Your task to perform on an android device: Clear the cart on target.com. Add duracell triple a to the cart on target.com, then select checkout. Image 0: 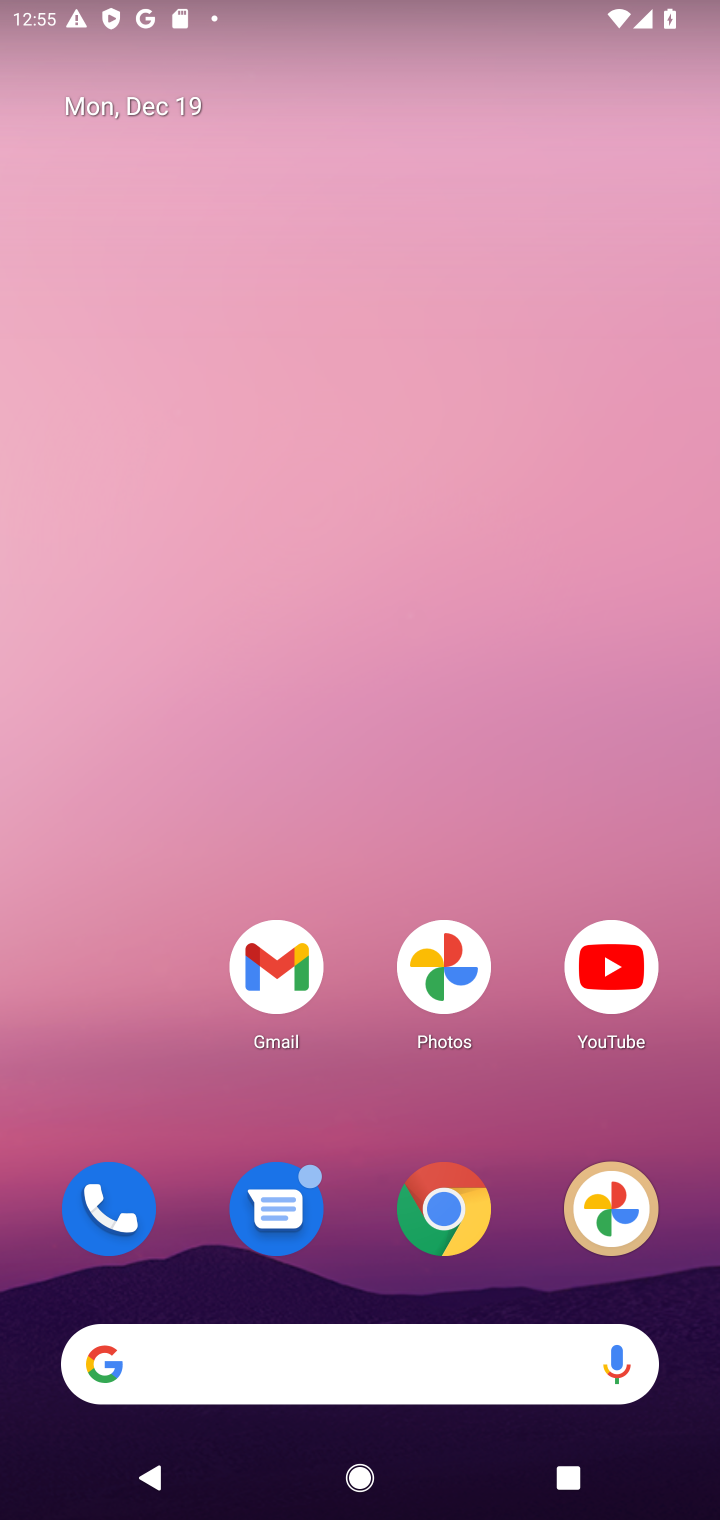
Step 0: click (454, 1201)
Your task to perform on an android device: Clear the cart on target.com. Add duracell triple a to the cart on target.com, then select checkout. Image 1: 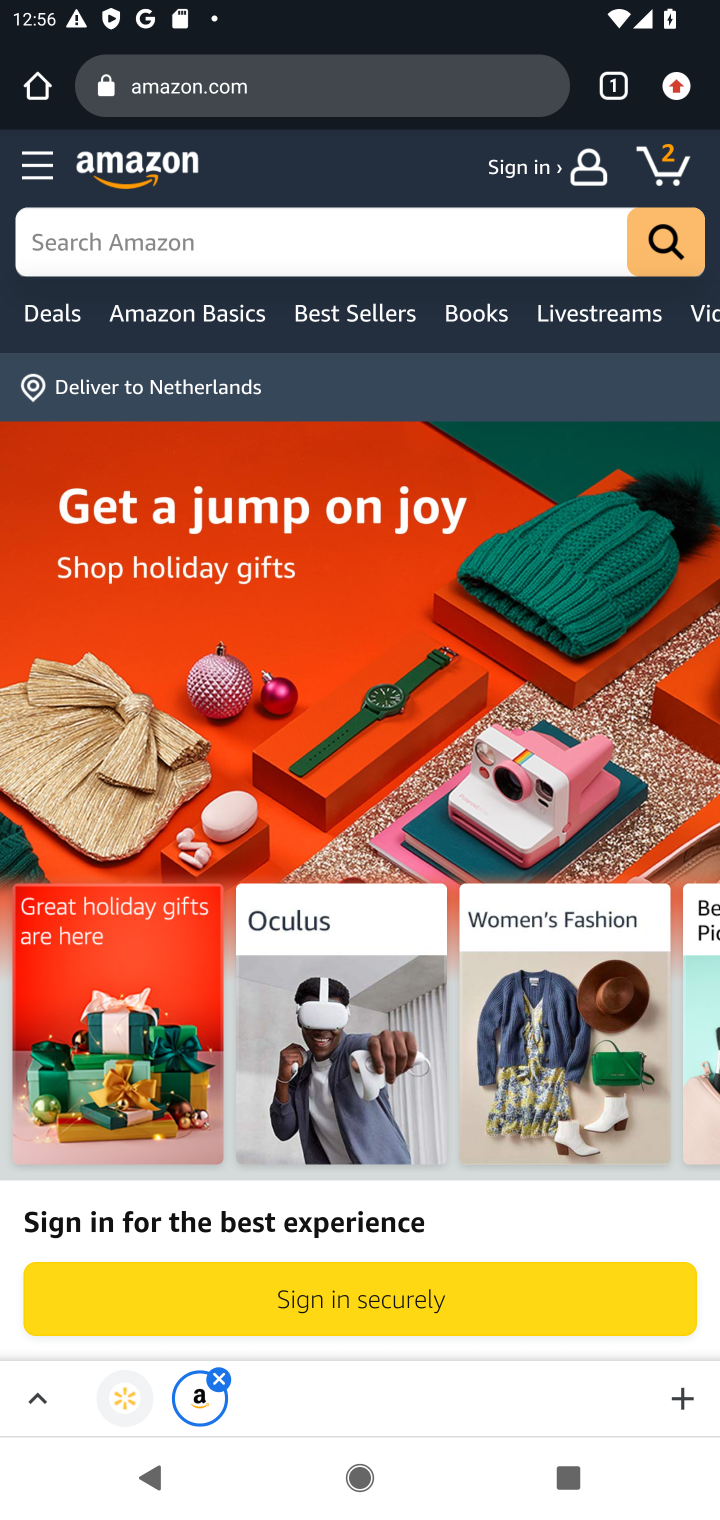
Step 1: click (330, 95)
Your task to perform on an android device: Clear the cart on target.com. Add duracell triple a to the cart on target.com, then select checkout. Image 2: 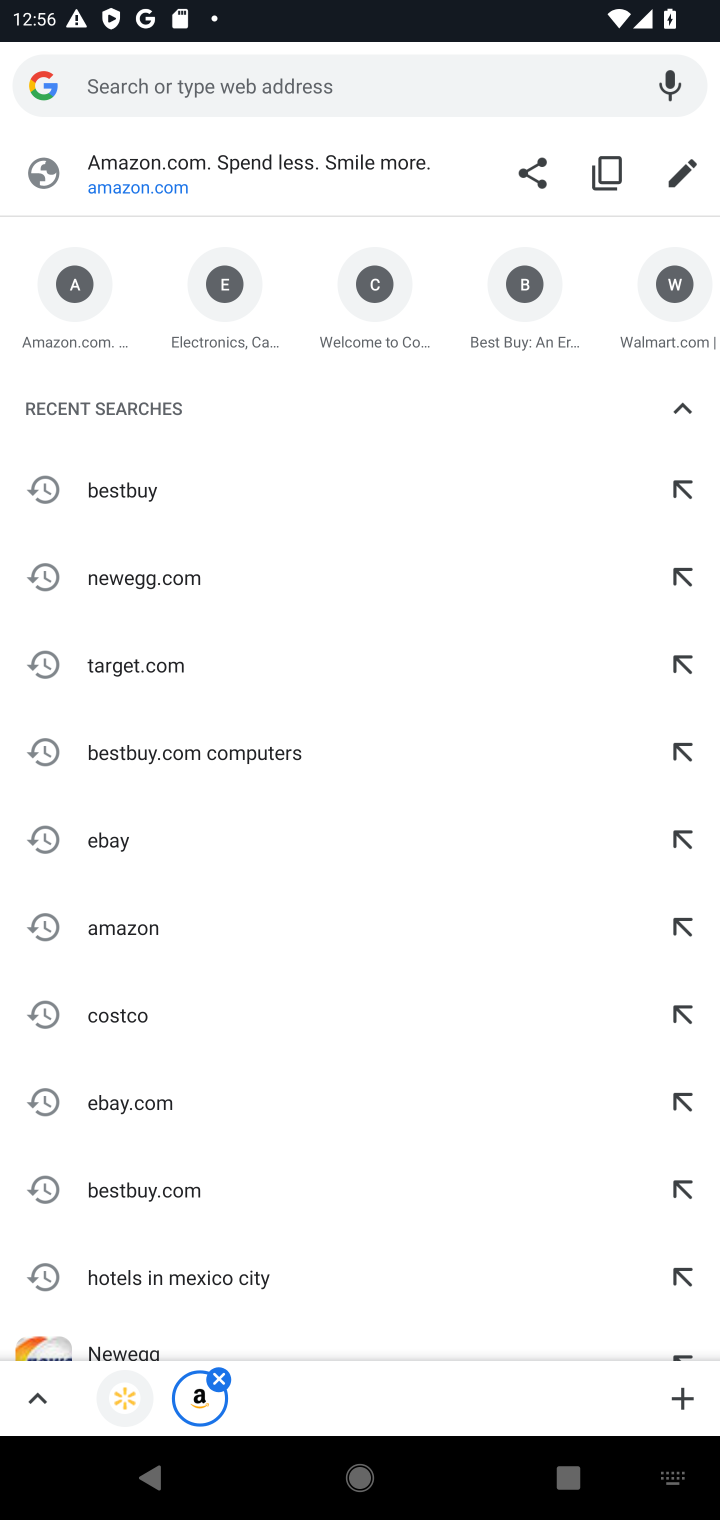
Step 2: click (176, 675)
Your task to perform on an android device: Clear the cart on target.com. Add duracell triple a to the cart on target.com, then select checkout. Image 3: 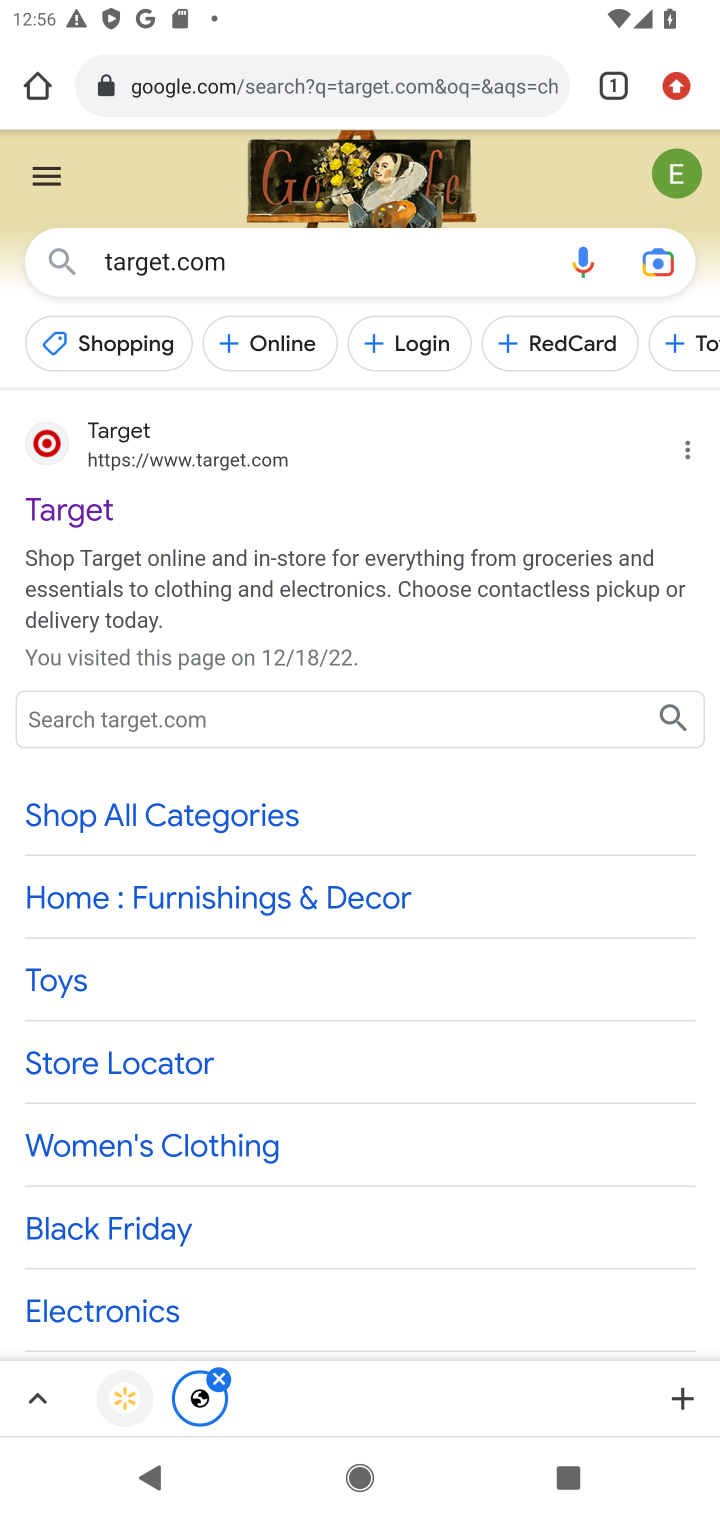
Step 3: click (66, 513)
Your task to perform on an android device: Clear the cart on target.com. Add duracell triple a to the cart on target.com, then select checkout. Image 4: 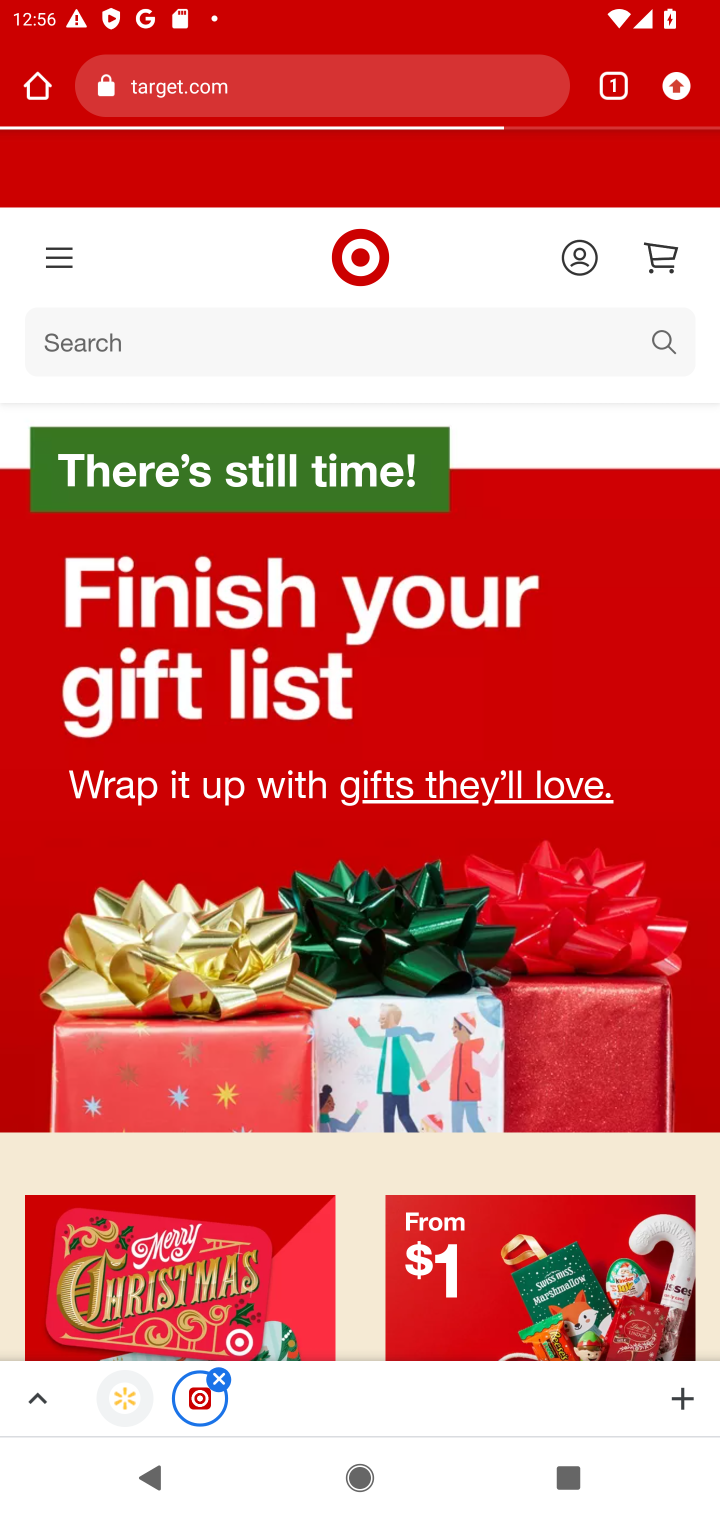
Step 4: click (286, 347)
Your task to perform on an android device: Clear the cart on target.com. Add duracell triple a to the cart on target.com, then select checkout. Image 5: 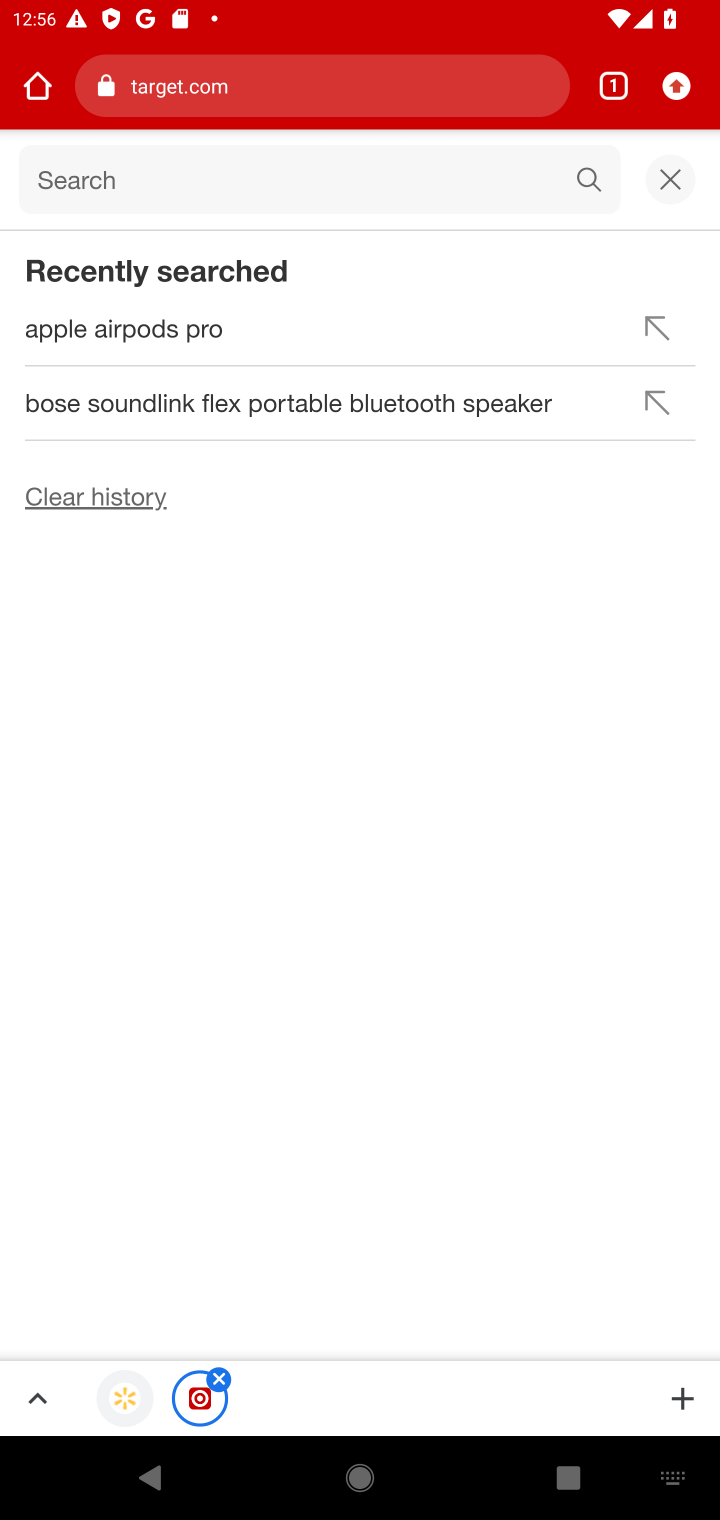
Step 5: type "duracell triple a"
Your task to perform on an android device: Clear the cart on target.com. Add duracell triple a to the cart on target.com, then select checkout. Image 6: 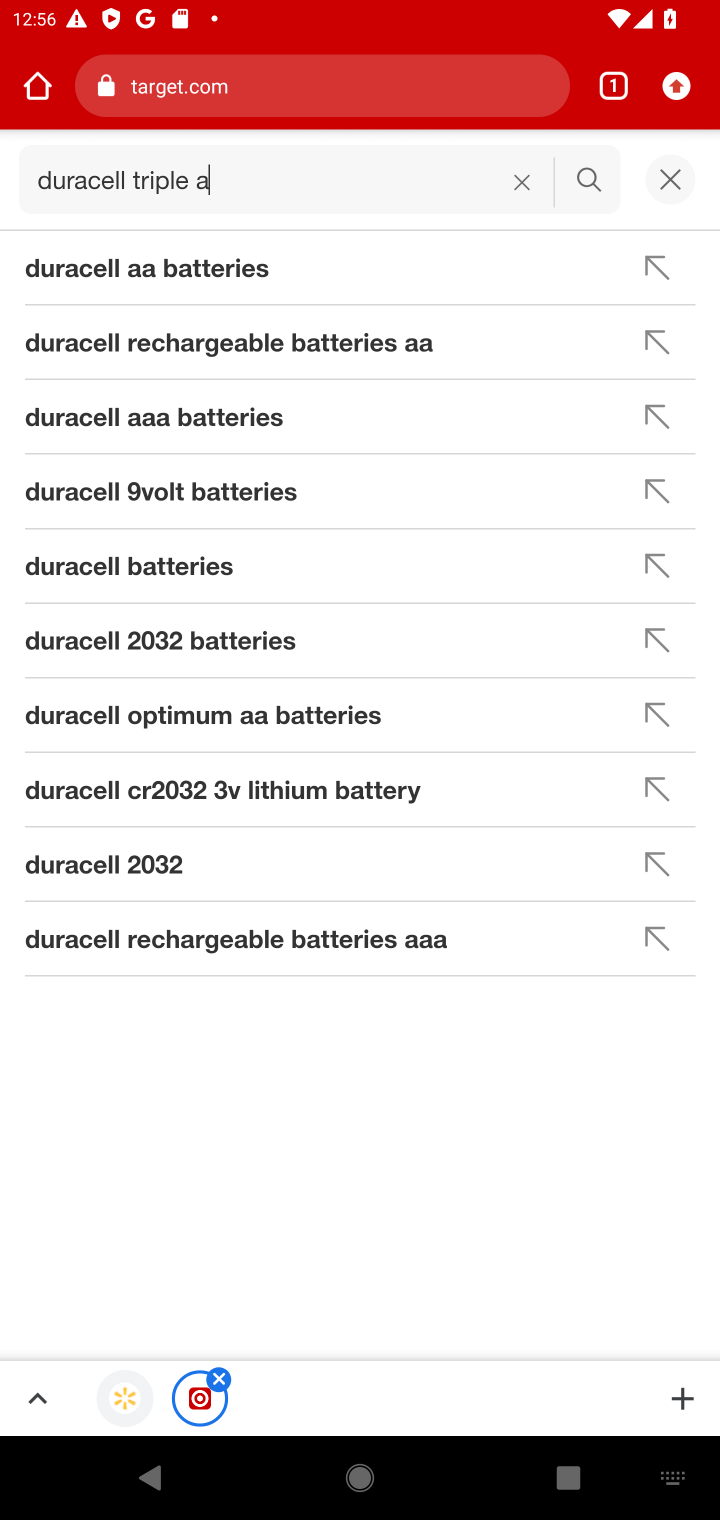
Step 6: click (166, 276)
Your task to perform on an android device: Clear the cart on target.com. Add duracell triple a to the cart on target.com, then select checkout. Image 7: 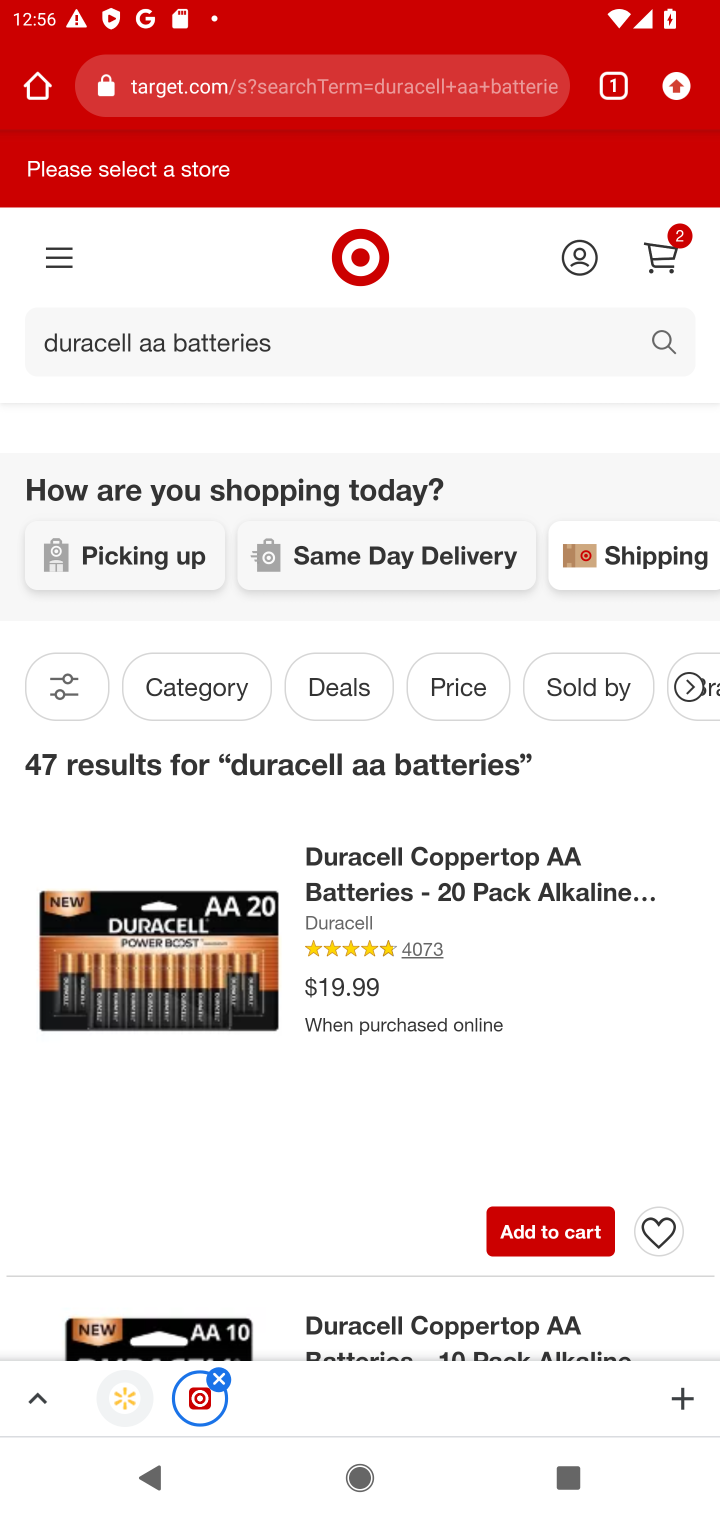
Step 7: click (571, 1239)
Your task to perform on an android device: Clear the cart on target.com. Add duracell triple a to the cart on target.com, then select checkout. Image 8: 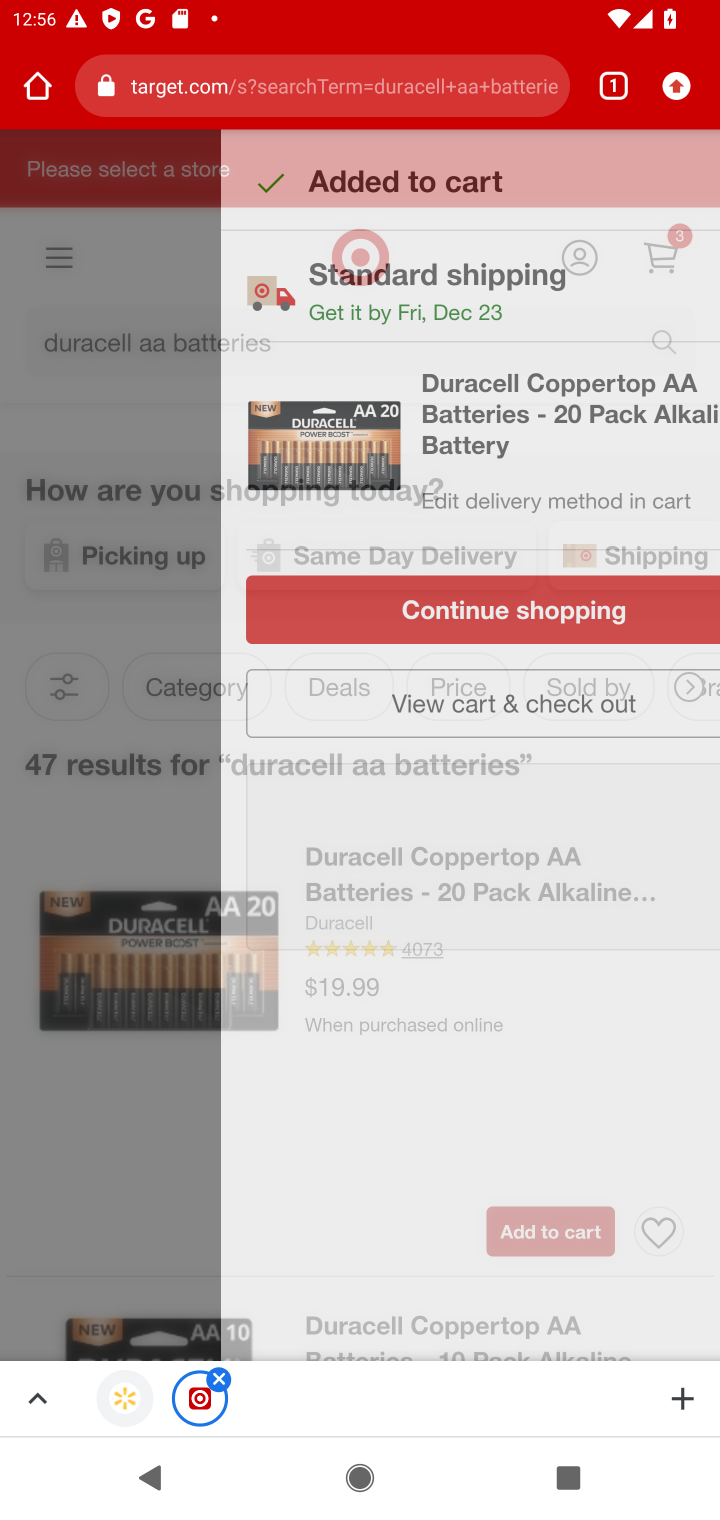
Step 8: click (664, 248)
Your task to perform on an android device: Clear the cart on target.com. Add duracell triple a to the cart on target.com, then select checkout. Image 9: 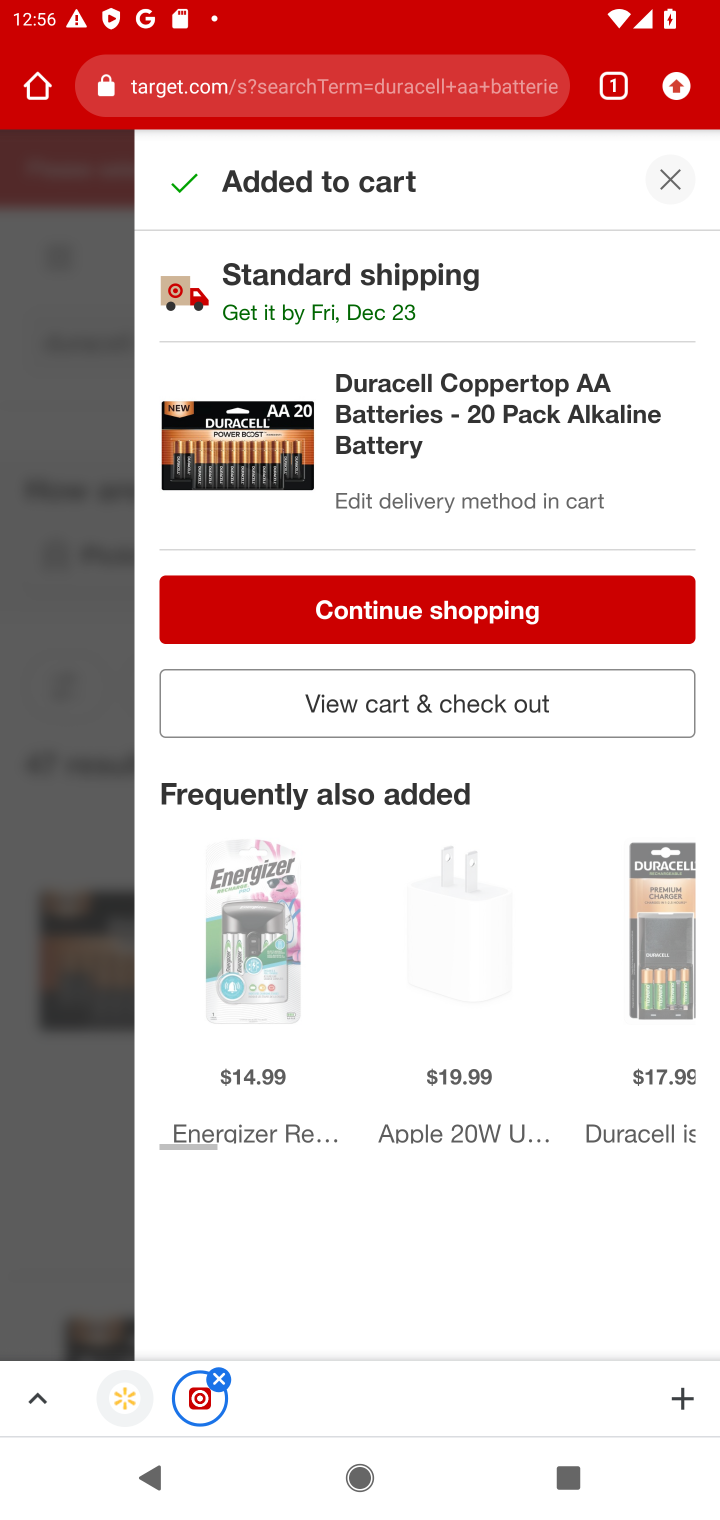
Step 9: click (442, 698)
Your task to perform on an android device: Clear the cart on target.com. Add duracell triple a to the cart on target.com, then select checkout. Image 10: 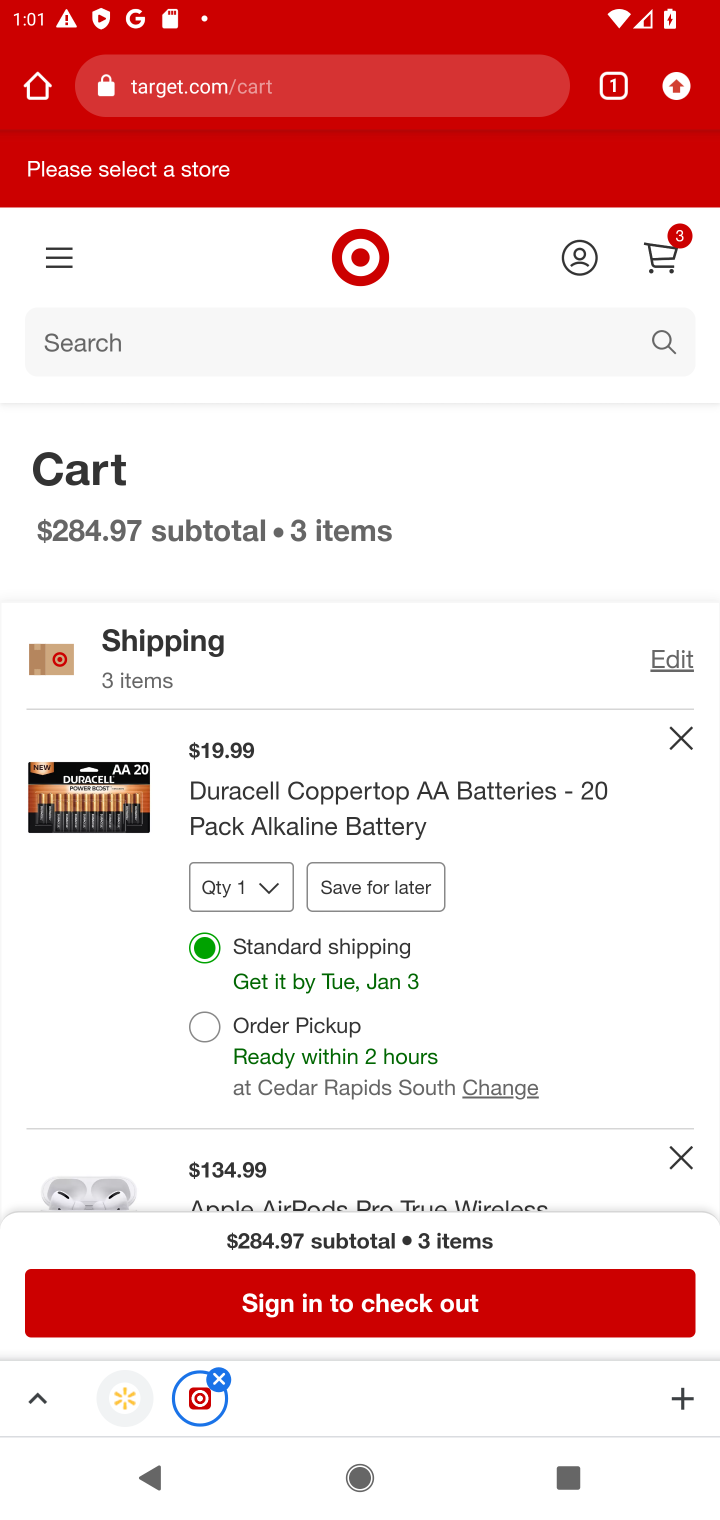
Step 10: task complete